Your task to perform on an android device: Search for the best selling coffee table on Crate & Barrel Image 0: 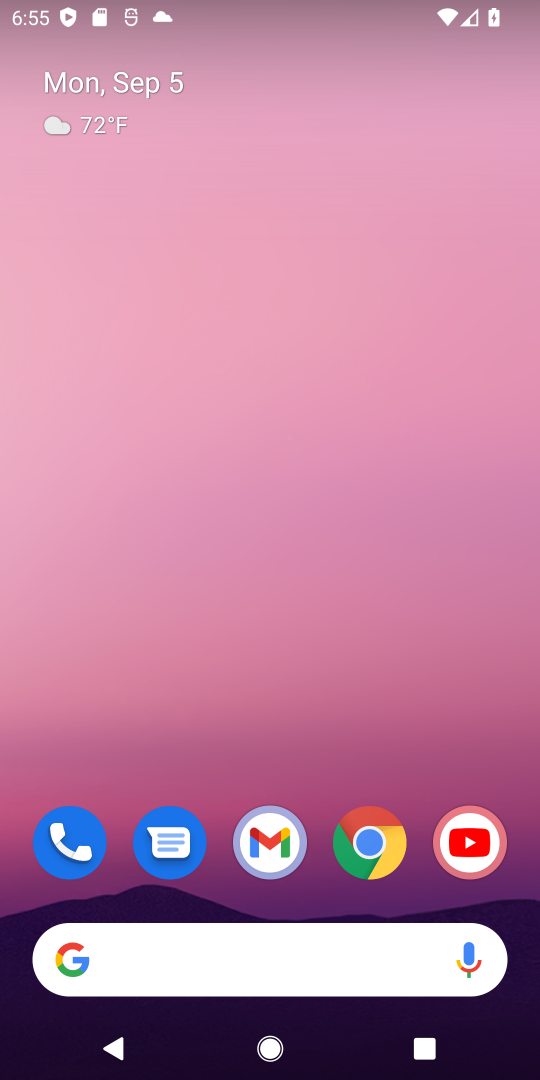
Step 0: click (370, 846)
Your task to perform on an android device: Search for the best selling coffee table on Crate & Barrel Image 1: 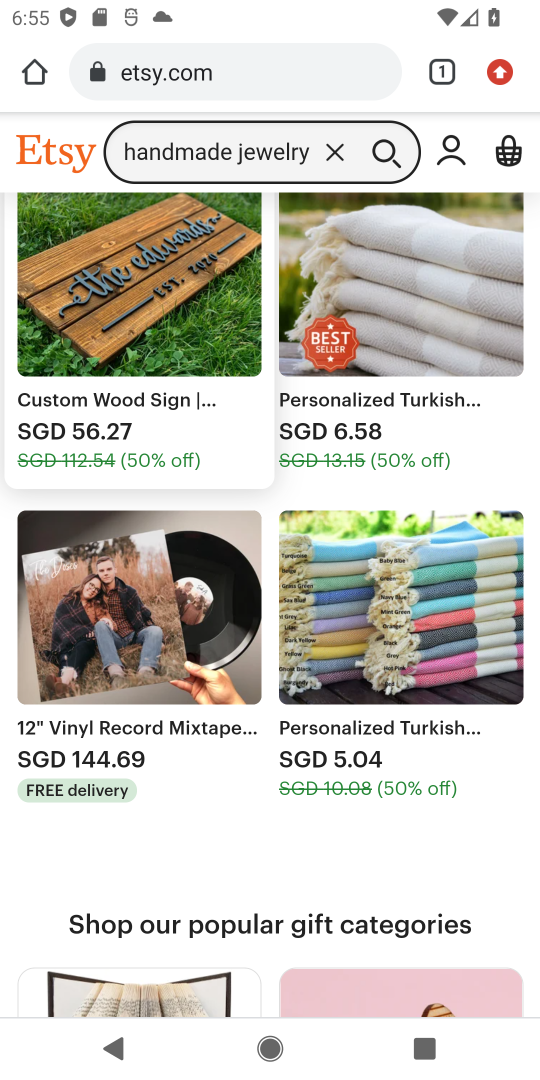
Step 1: click (320, 85)
Your task to perform on an android device: Search for the best selling coffee table on Crate & Barrel Image 2: 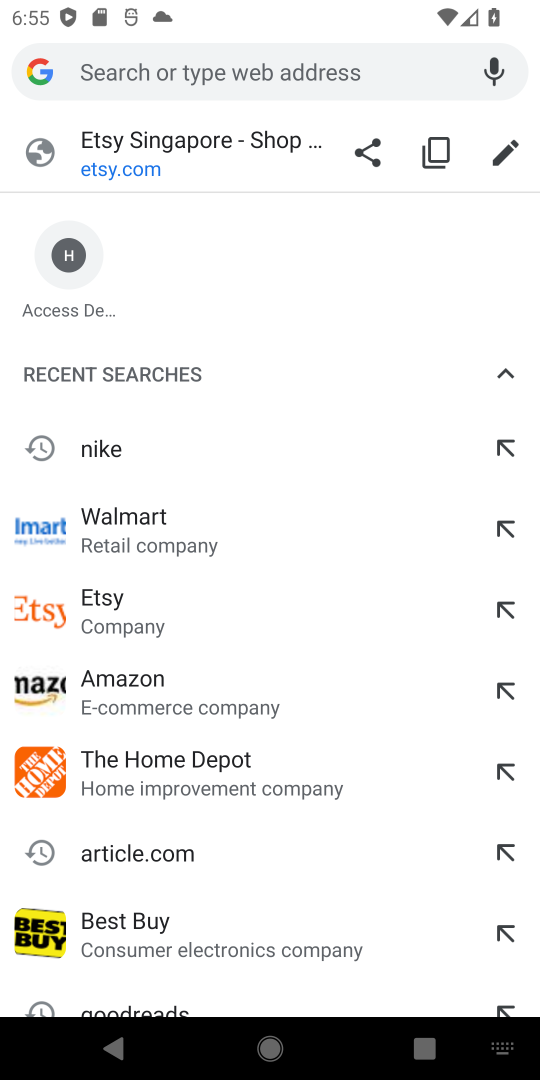
Step 2: type "Crate & Barrel"
Your task to perform on an android device: Search for the best selling coffee table on Crate & Barrel Image 3: 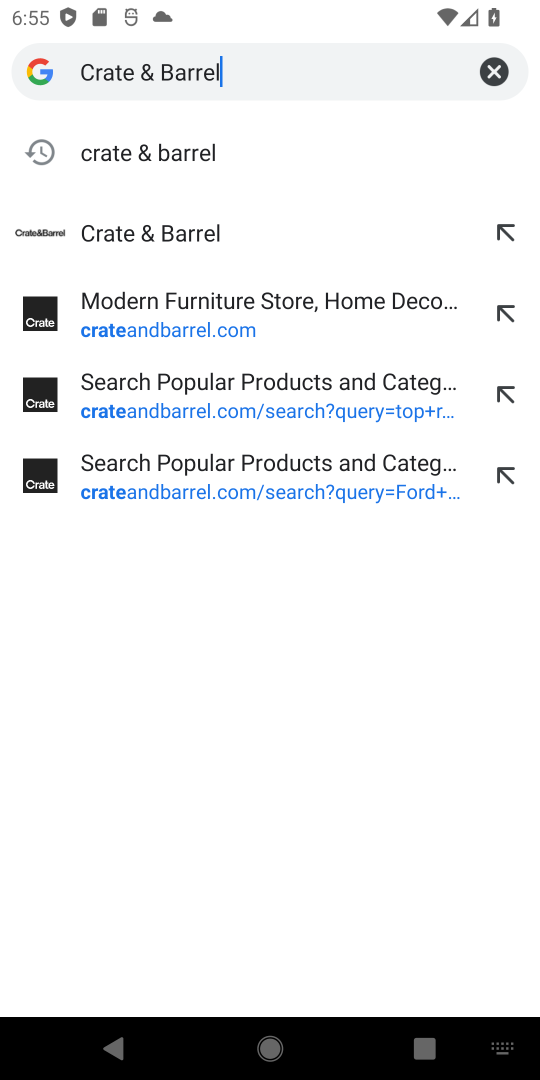
Step 3: click (175, 149)
Your task to perform on an android device: Search for the best selling coffee table on Crate & Barrel Image 4: 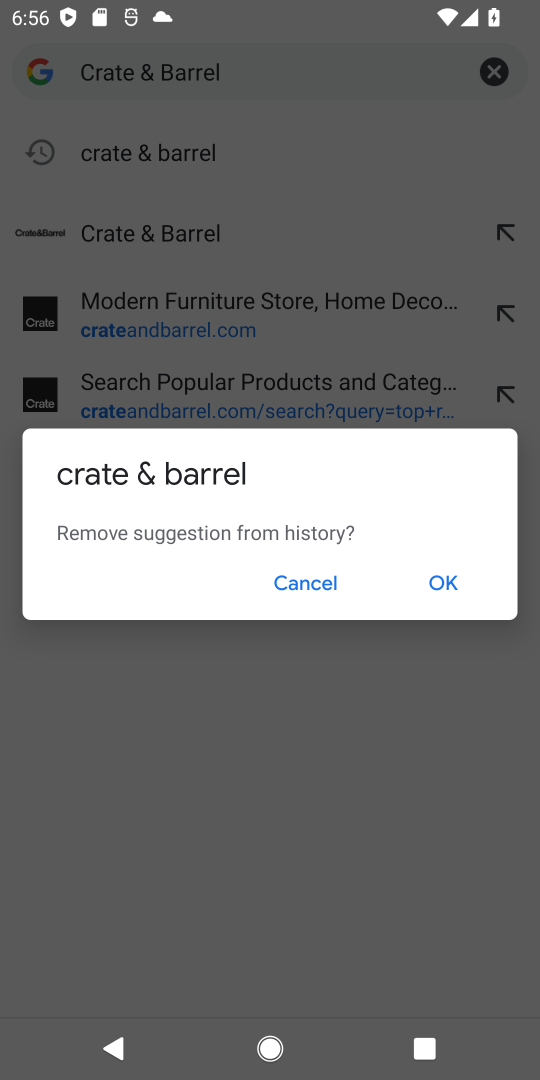
Step 4: click (375, 653)
Your task to perform on an android device: Search for the best selling coffee table on Crate & Barrel Image 5: 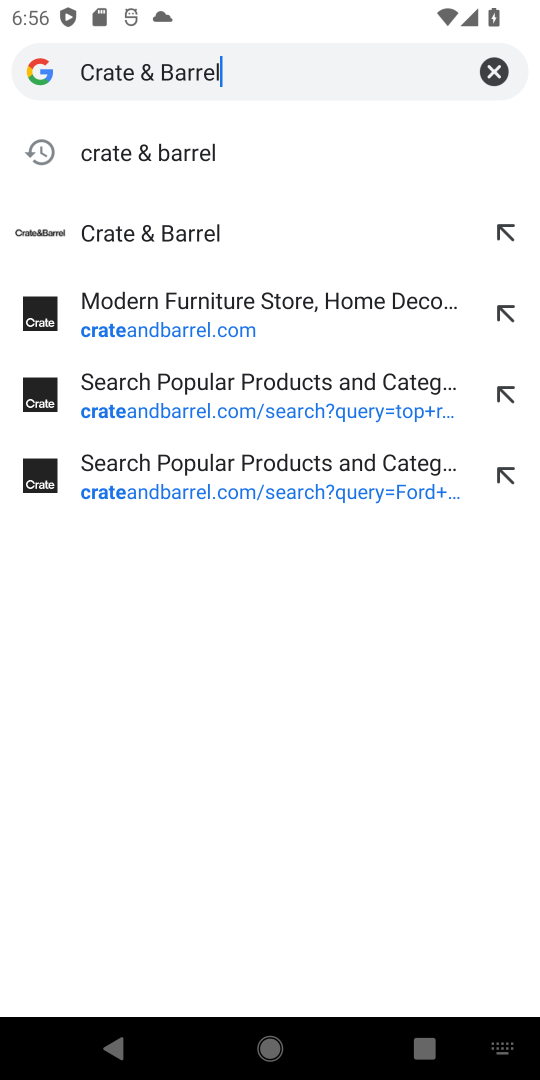
Step 5: click (166, 255)
Your task to perform on an android device: Search for the best selling coffee table on Crate & Barrel Image 6: 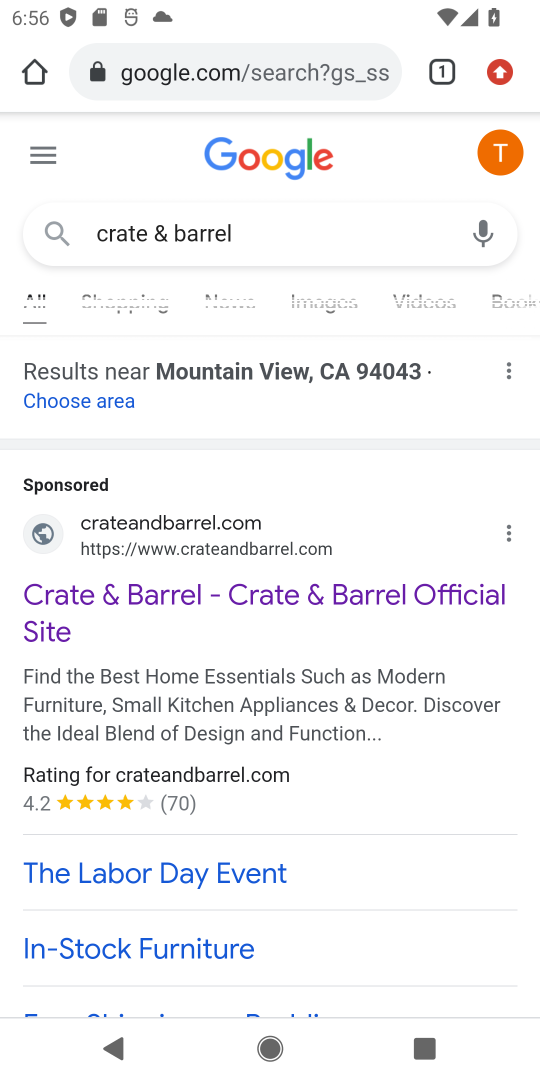
Step 6: click (287, 631)
Your task to perform on an android device: Search for the best selling coffee table on Crate & Barrel Image 7: 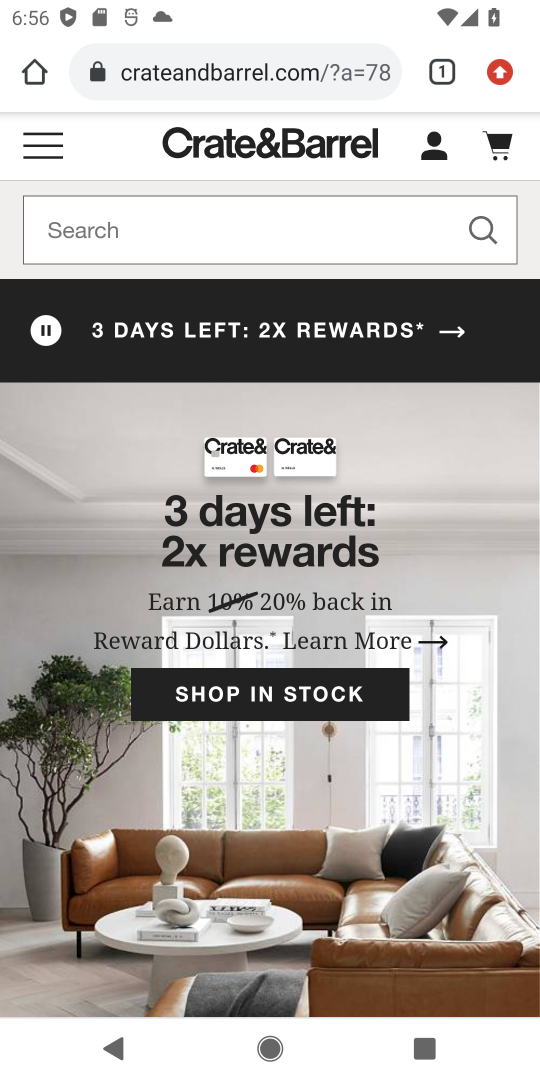
Step 7: click (233, 228)
Your task to perform on an android device: Search for the best selling coffee table on Crate & Barrel Image 8: 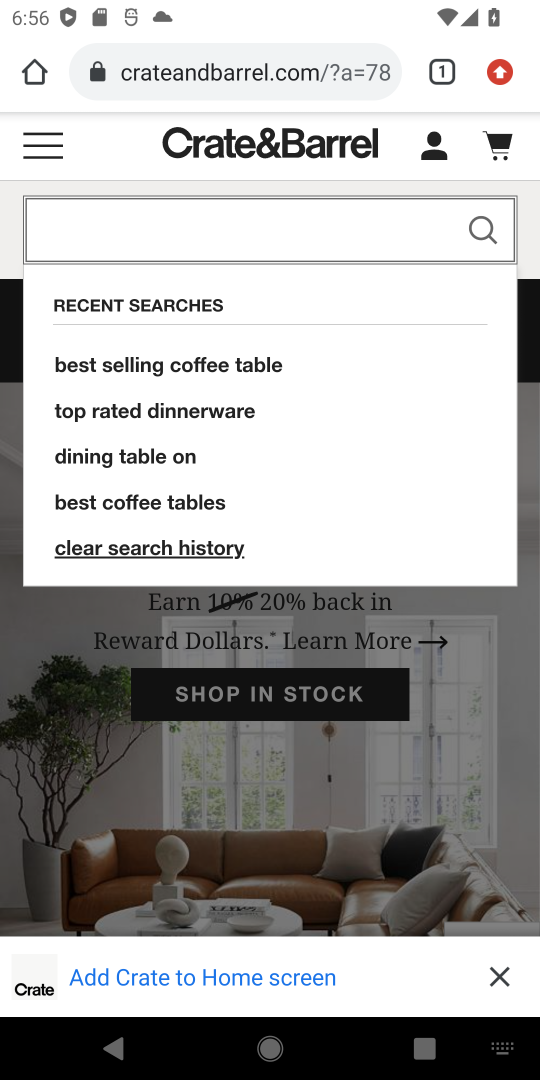
Step 8: click (274, 234)
Your task to perform on an android device: Search for the best selling coffee table on Crate & Barrel Image 9: 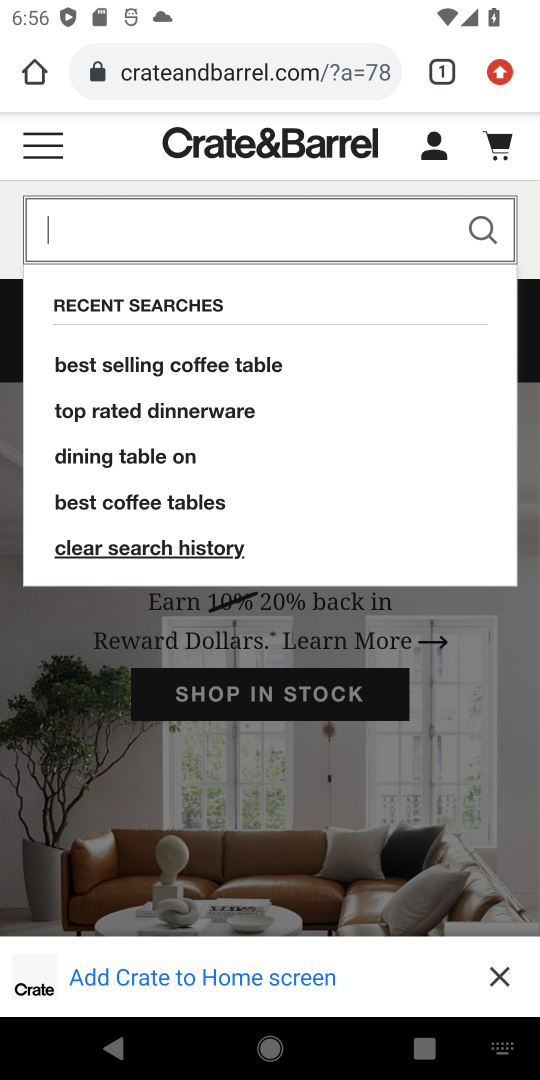
Step 9: type "best selling coffee table"
Your task to perform on an android device: Search for the best selling coffee table on Crate & Barrel Image 10: 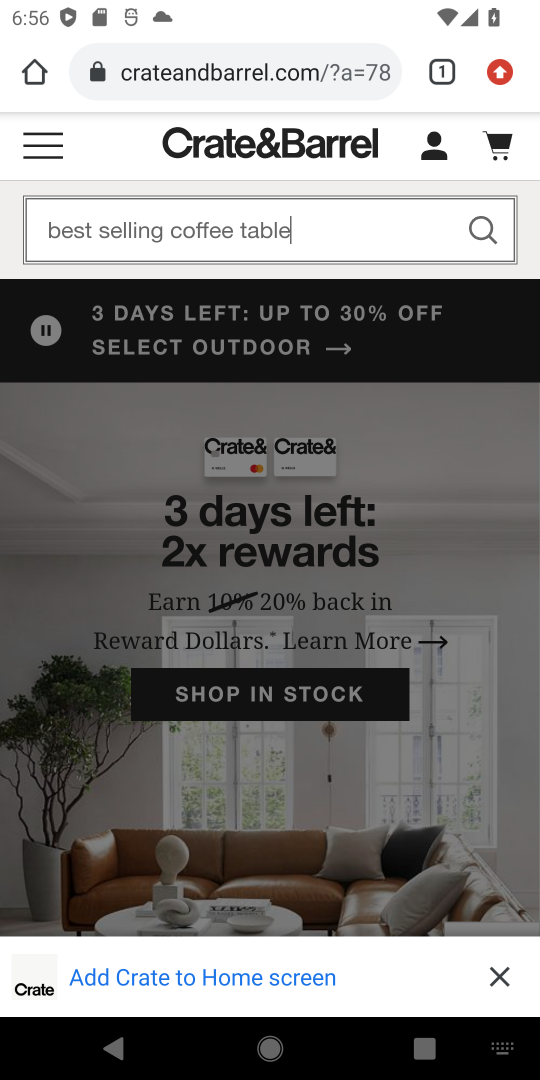
Step 10: click (491, 232)
Your task to perform on an android device: Search for the best selling coffee table on Crate & Barrel Image 11: 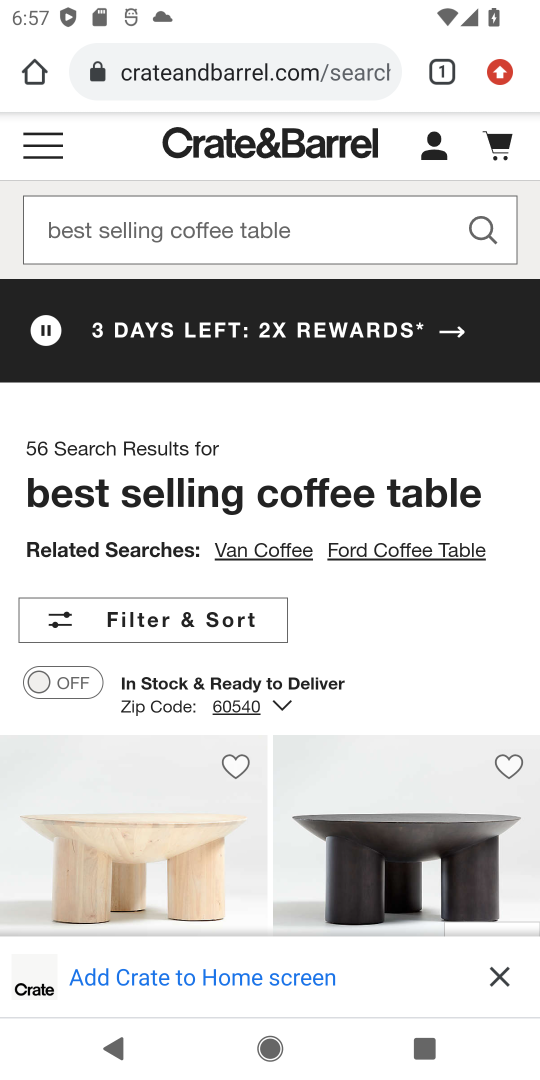
Step 11: task complete